Your task to perform on an android device: check battery use Image 0: 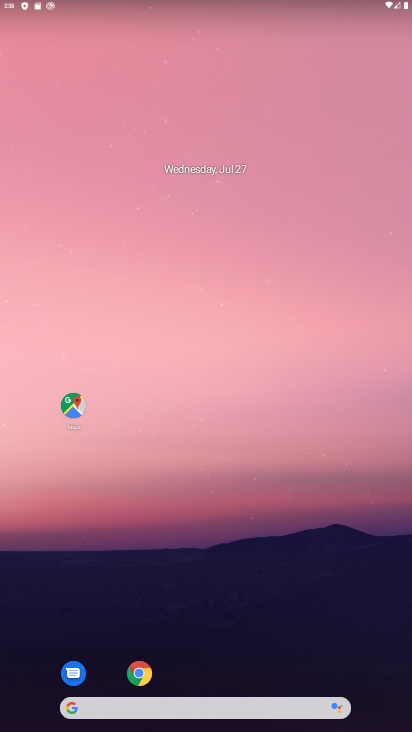
Step 0: press home button
Your task to perform on an android device: check battery use Image 1: 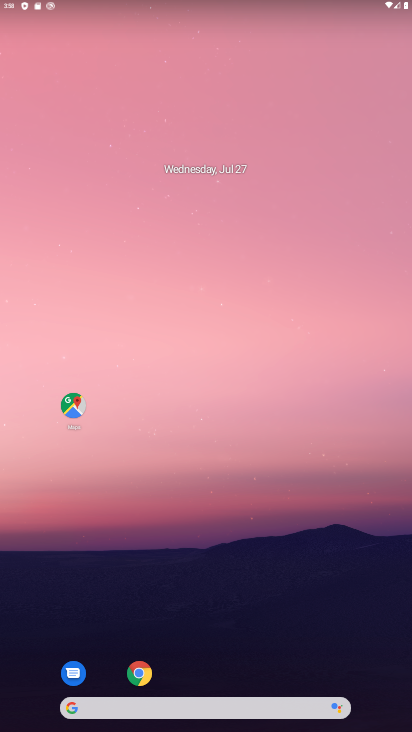
Step 1: drag from (319, 646) to (302, 131)
Your task to perform on an android device: check battery use Image 2: 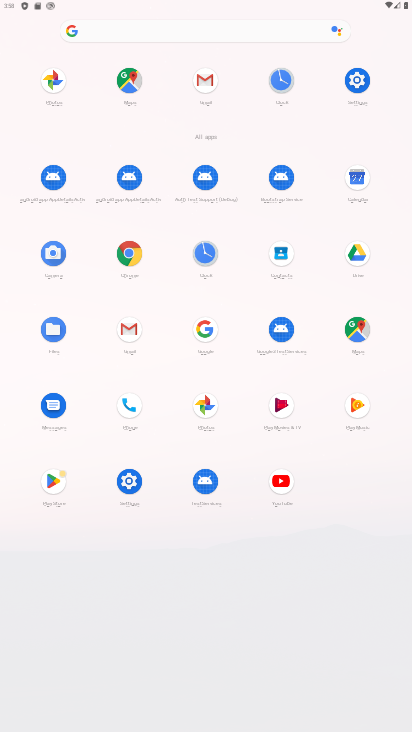
Step 2: click (130, 484)
Your task to perform on an android device: check battery use Image 3: 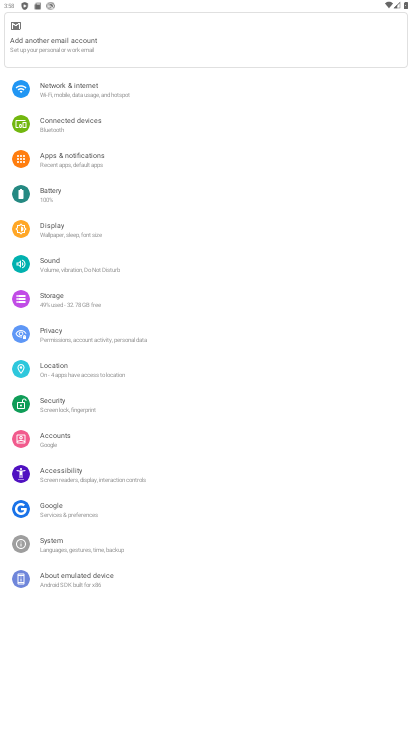
Step 3: click (72, 191)
Your task to perform on an android device: check battery use Image 4: 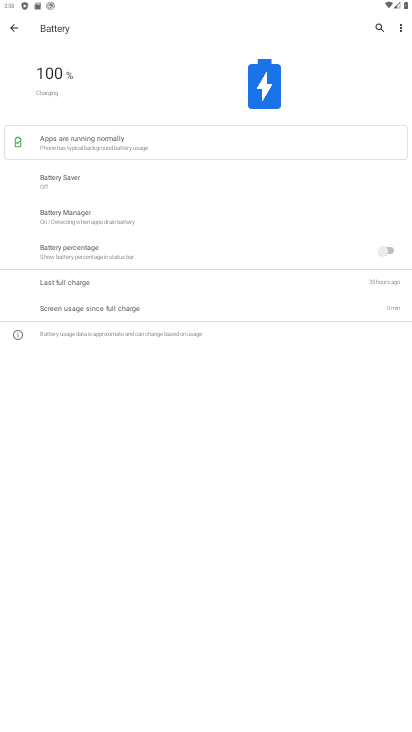
Step 4: click (401, 25)
Your task to perform on an android device: check battery use Image 5: 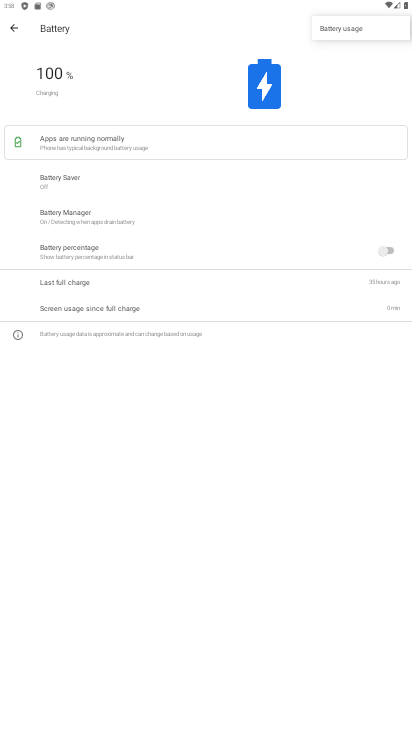
Step 5: click (362, 29)
Your task to perform on an android device: check battery use Image 6: 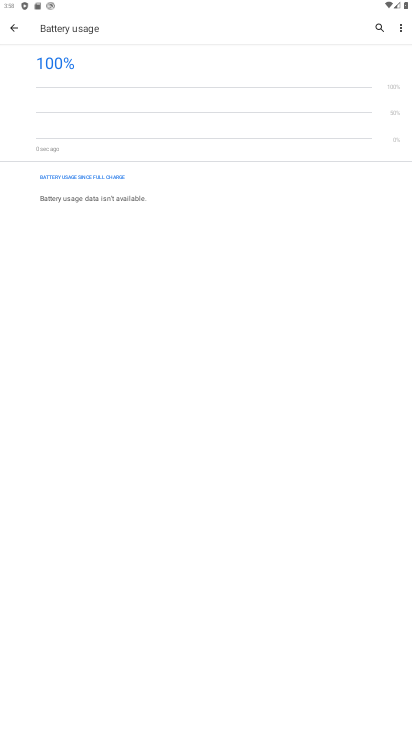
Step 6: task complete